Your task to perform on an android device: Open Yahoo.com Image 0: 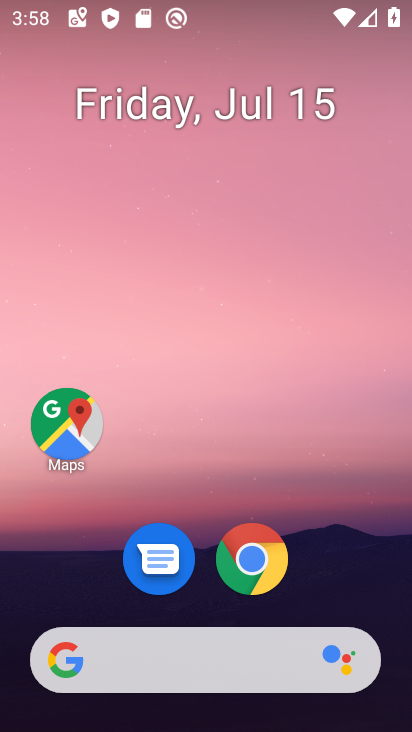
Step 0: click (258, 552)
Your task to perform on an android device: Open Yahoo.com Image 1: 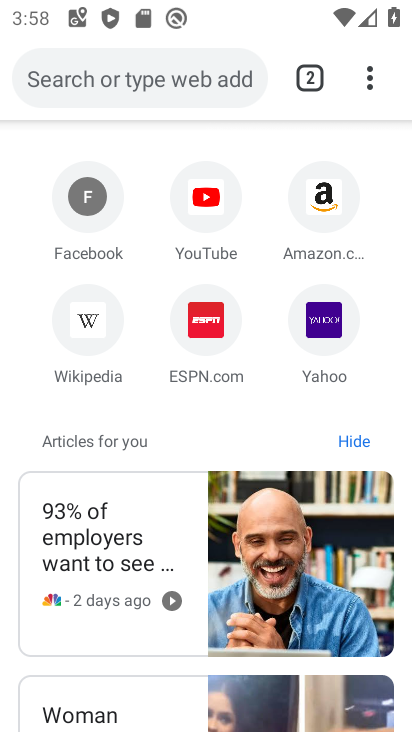
Step 1: click (338, 328)
Your task to perform on an android device: Open Yahoo.com Image 2: 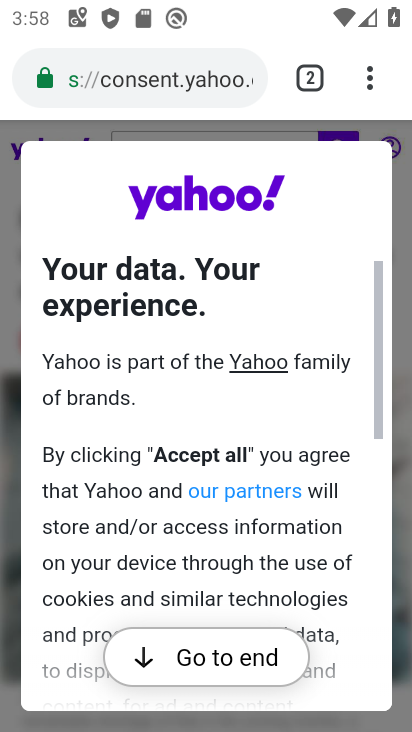
Step 2: task complete